Your task to perform on an android device: check data usage Image 0: 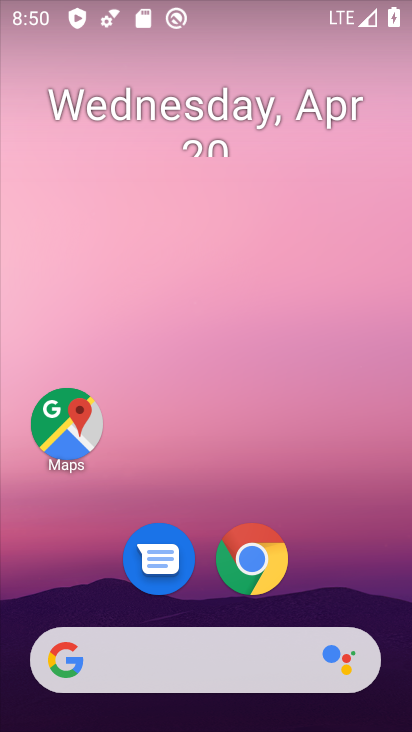
Step 0: press home button
Your task to perform on an android device: check data usage Image 1: 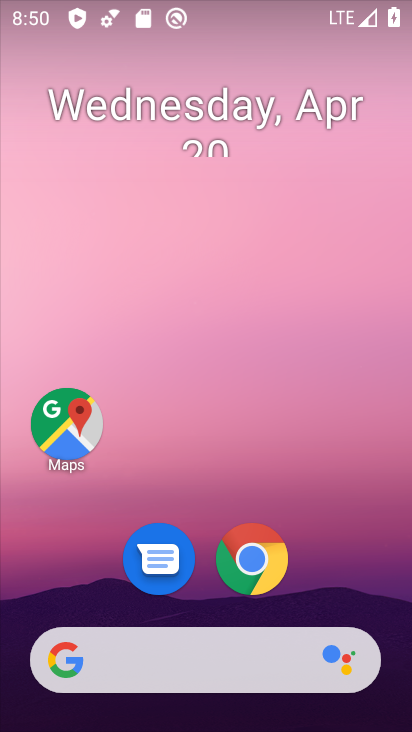
Step 1: press home button
Your task to perform on an android device: check data usage Image 2: 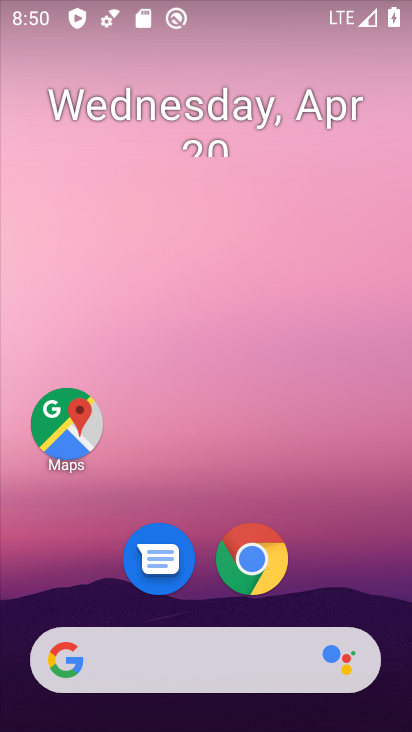
Step 2: drag from (294, 593) to (290, 269)
Your task to perform on an android device: check data usage Image 3: 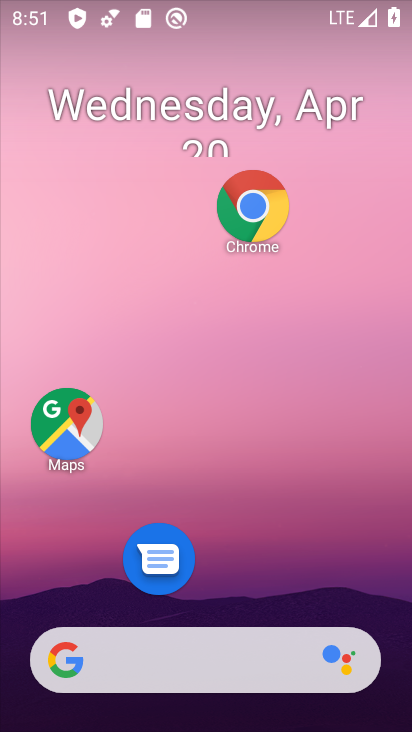
Step 3: drag from (325, 554) to (332, 0)
Your task to perform on an android device: check data usage Image 4: 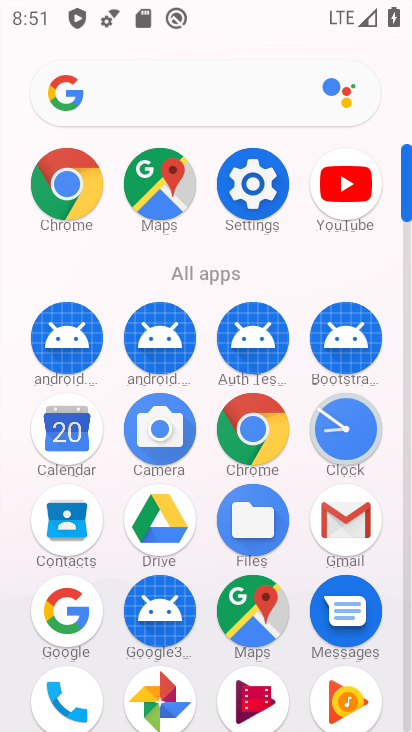
Step 4: click (248, 197)
Your task to perform on an android device: check data usage Image 5: 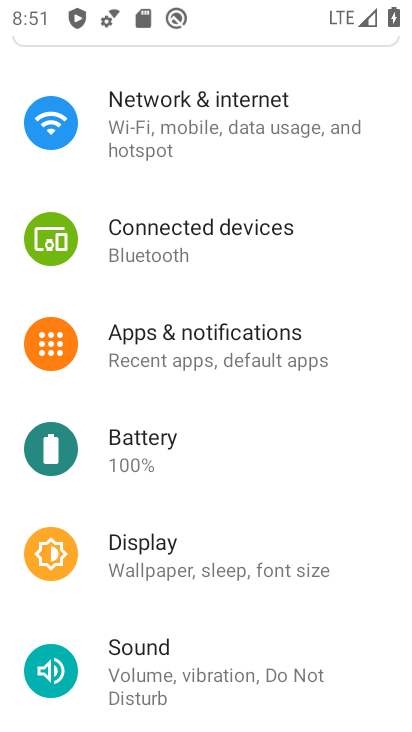
Step 5: click (215, 140)
Your task to perform on an android device: check data usage Image 6: 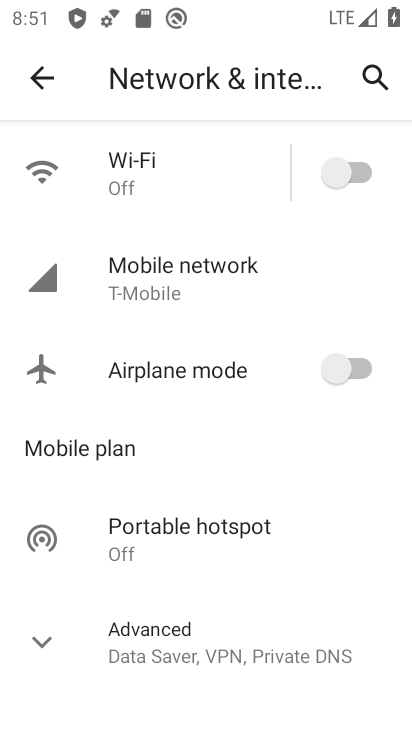
Step 6: click (156, 287)
Your task to perform on an android device: check data usage Image 7: 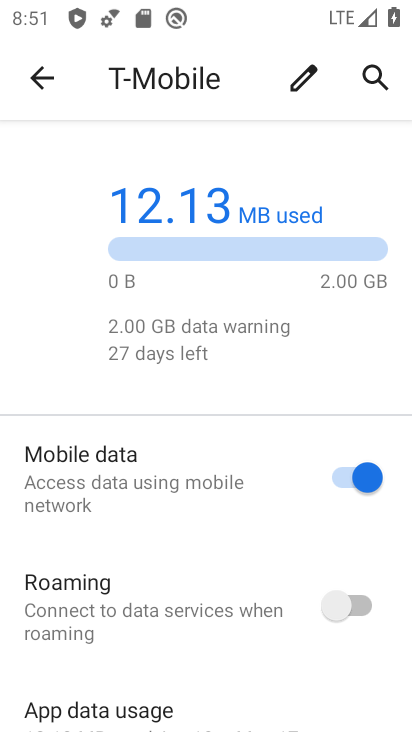
Step 7: click (94, 715)
Your task to perform on an android device: check data usage Image 8: 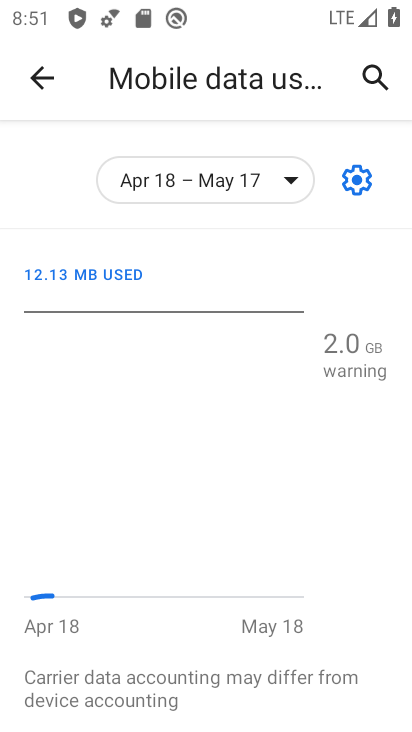
Step 8: task complete